Your task to perform on an android device: Is it going to rain tomorrow? Image 0: 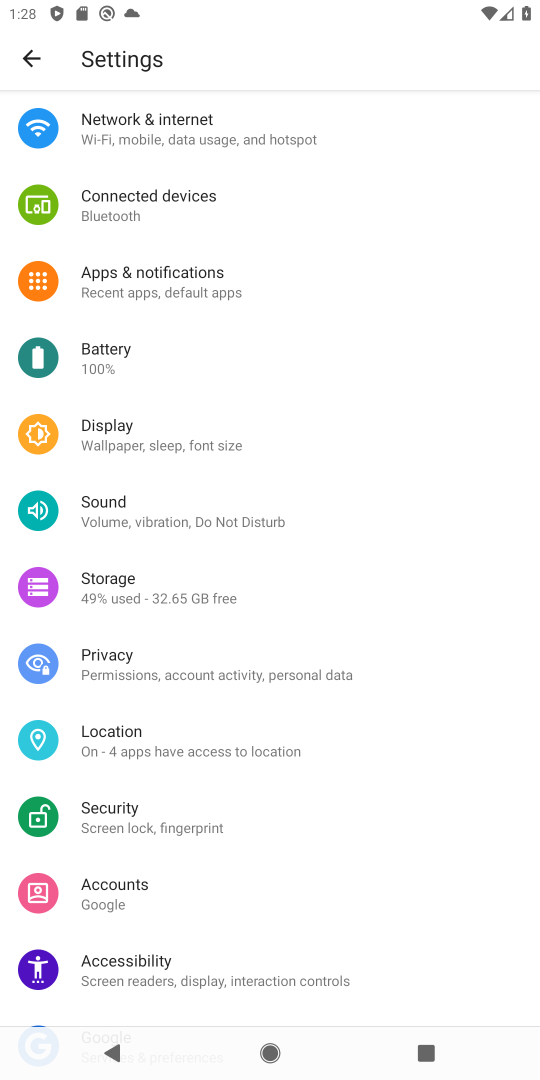
Step 0: press home button
Your task to perform on an android device: Is it going to rain tomorrow? Image 1: 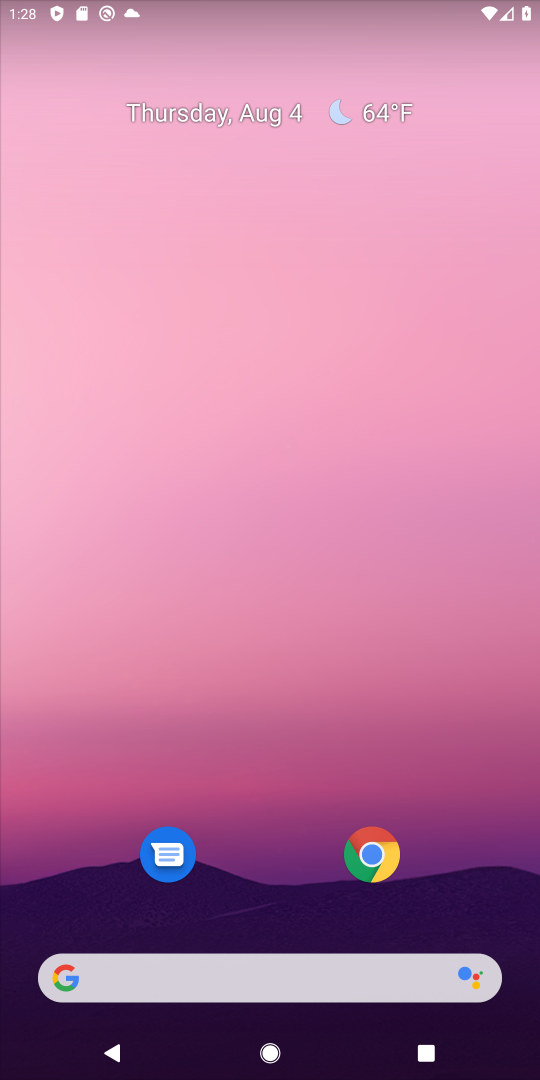
Step 1: click (296, 991)
Your task to perform on an android device: Is it going to rain tomorrow? Image 2: 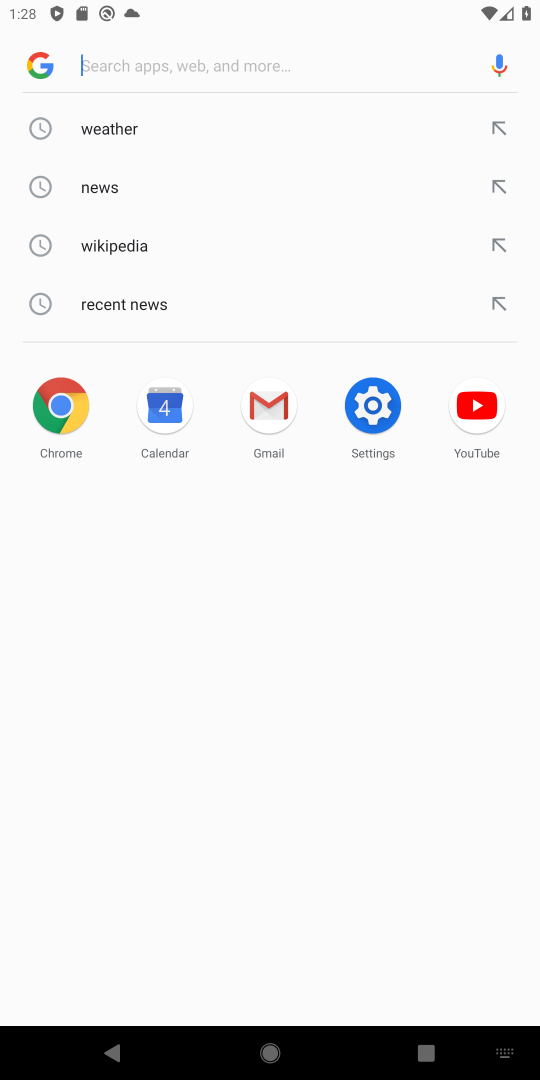
Step 2: type "Is it going to rain tomorrow?"
Your task to perform on an android device: Is it going to rain tomorrow? Image 3: 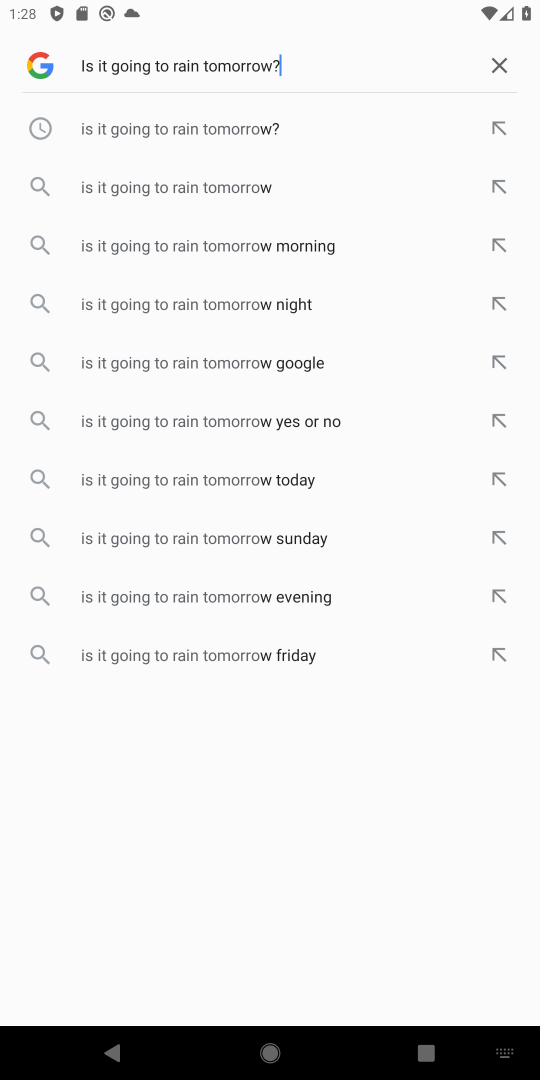
Step 3: press enter
Your task to perform on an android device: Is it going to rain tomorrow? Image 4: 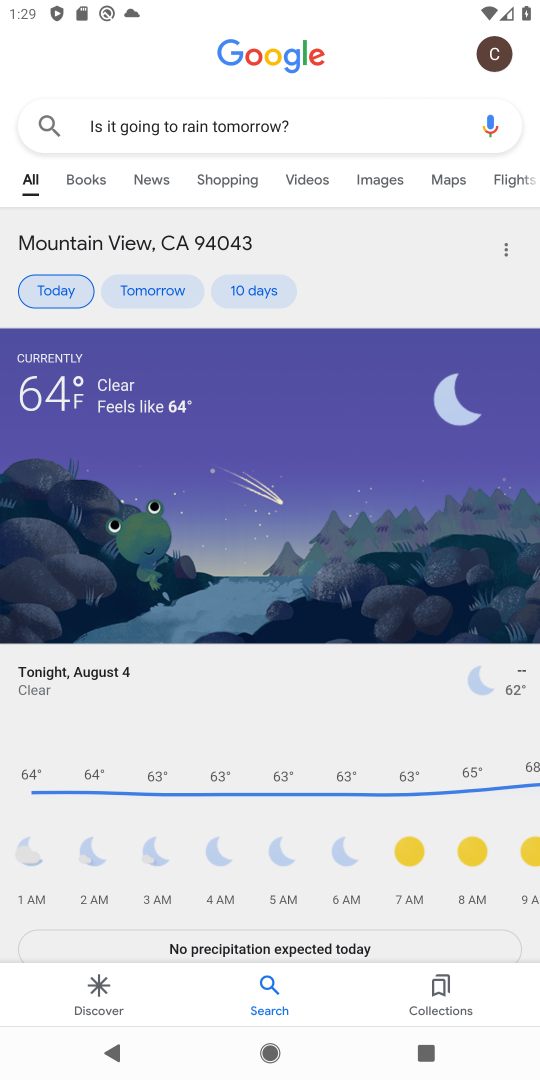
Step 4: task complete